Your task to perform on an android device: move an email to a new category in the gmail app Image 0: 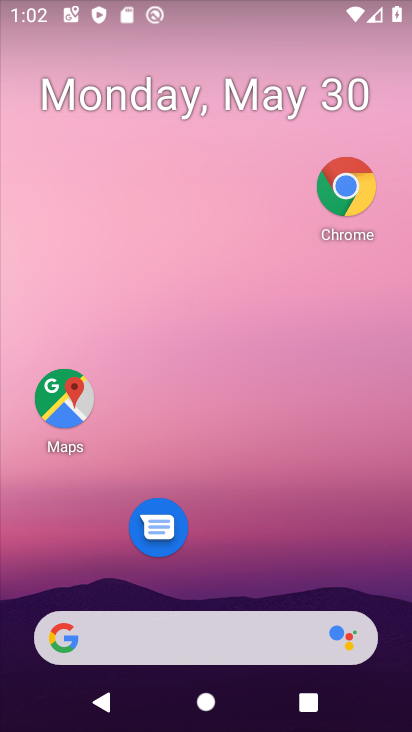
Step 0: drag from (222, 540) to (279, 104)
Your task to perform on an android device: move an email to a new category in the gmail app Image 1: 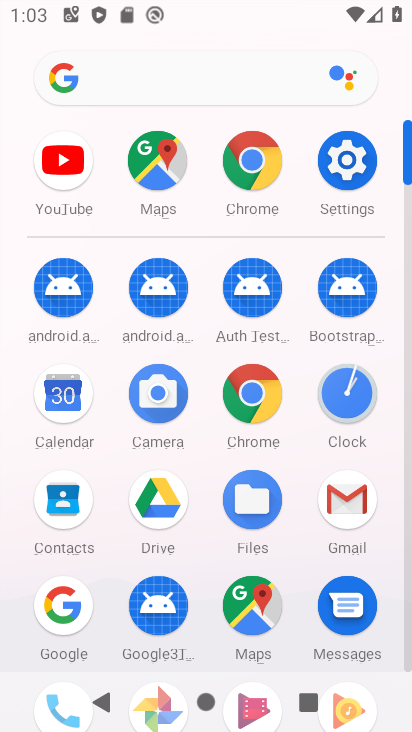
Step 1: click (350, 489)
Your task to perform on an android device: move an email to a new category in the gmail app Image 2: 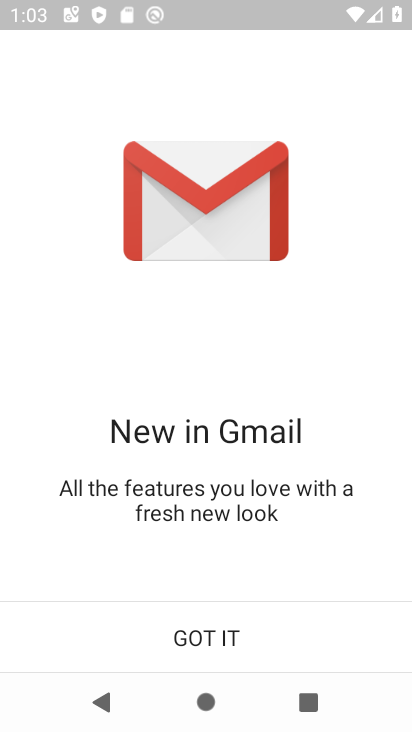
Step 2: click (216, 617)
Your task to perform on an android device: move an email to a new category in the gmail app Image 3: 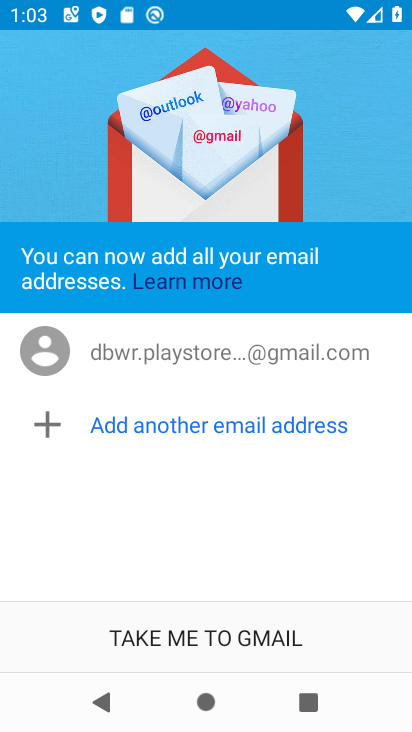
Step 3: click (180, 650)
Your task to perform on an android device: move an email to a new category in the gmail app Image 4: 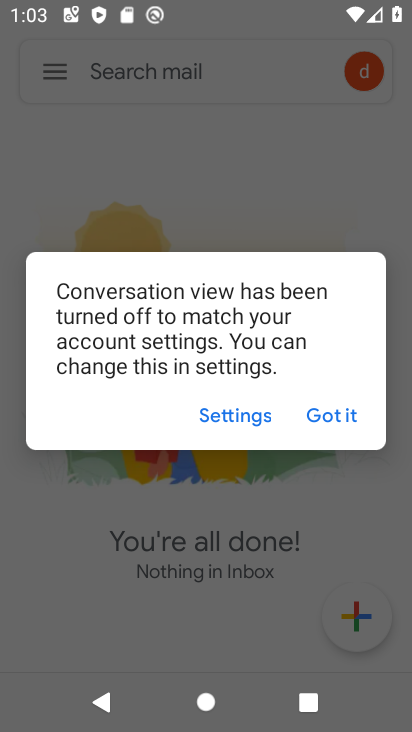
Step 4: click (315, 415)
Your task to perform on an android device: move an email to a new category in the gmail app Image 5: 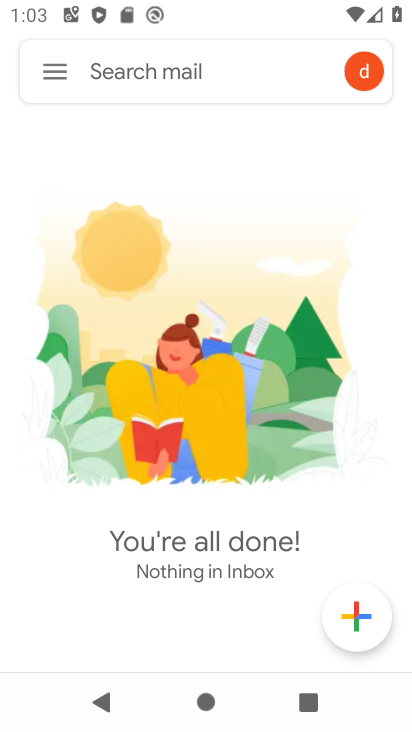
Step 5: click (52, 82)
Your task to perform on an android device: move an email to a new category in the gmail app Image 6: 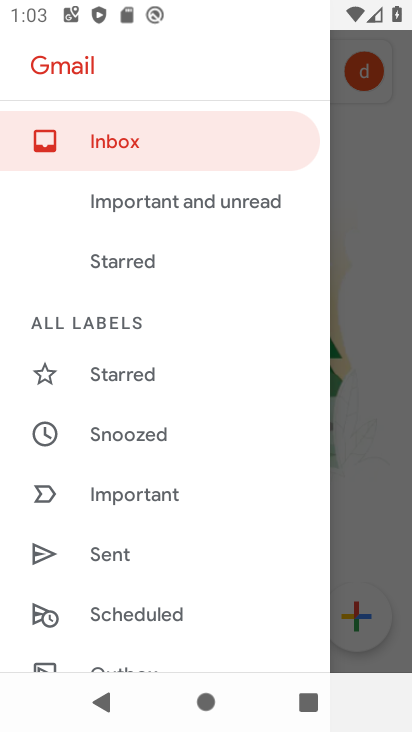
Step 6: click (379, 316)
Your task to perform on an android device: move an email to a new category in the gmail app Image 7: 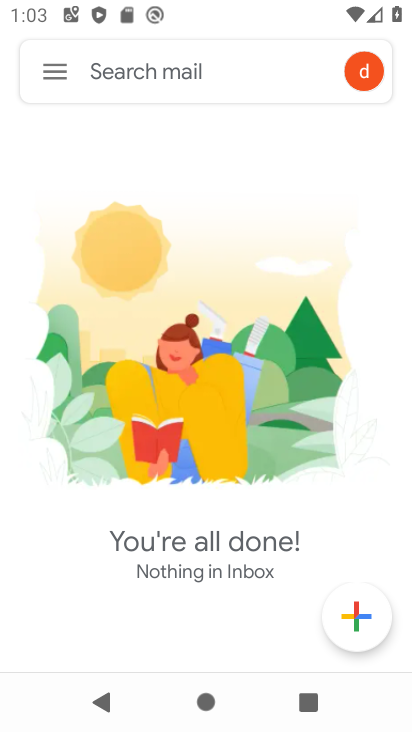
Step 7: task complete